Your task to perform on an android device: set default search engine in the chrome app Image 0: 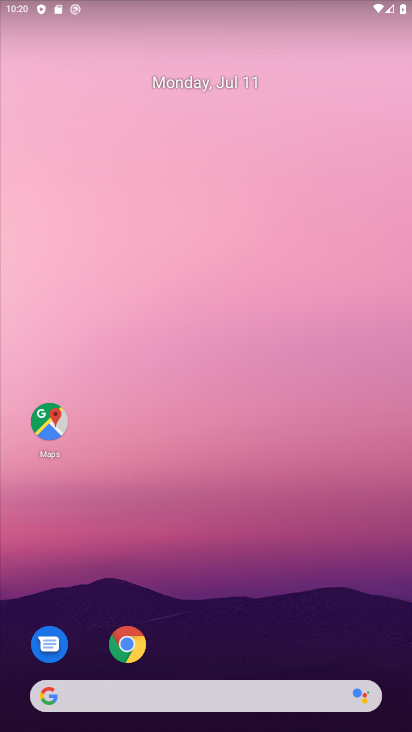
Step 0: click (130, 644)
Your task to perform on an android device: set default search engine in the chrome app Image 1: 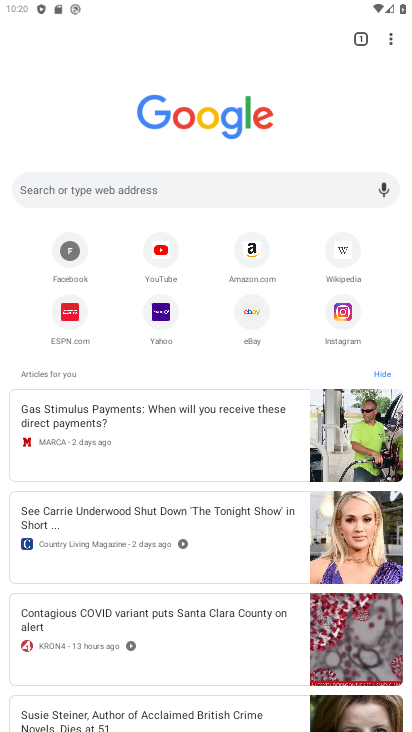
Step 1: click (391, 38)
Your task to perform on an android device: set default search engine in the chrome app Image 2: 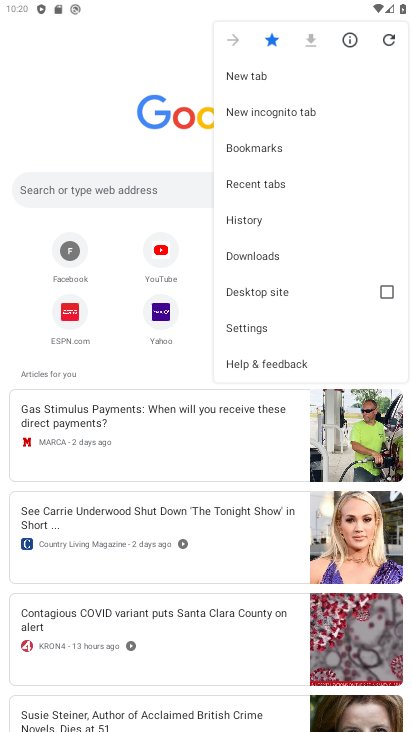
Step 2: click (245, 331)
Your task to perform on an android device: set default search engine in the chrome app Image 3: 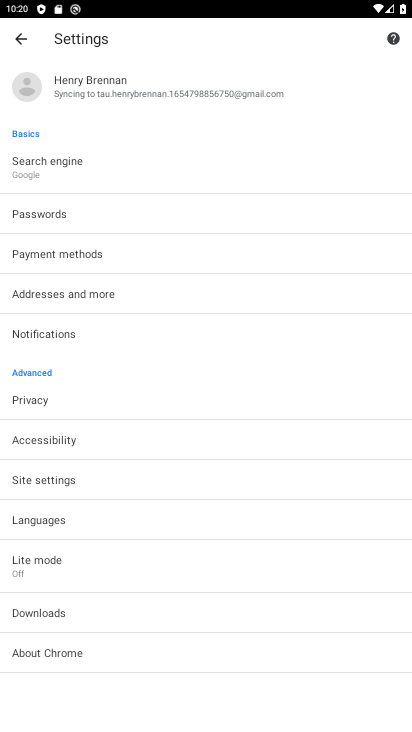
Step 3: click (72, 168)
Your task to perform on an android device: set default search engine in the chrome app Image 4: 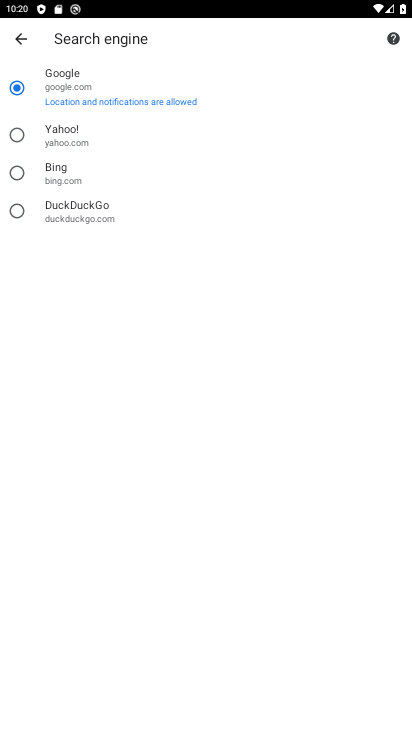
Step 4: click (91, 93)
Your task to perform on an android device: set default search engine in the chrome app Image 5: 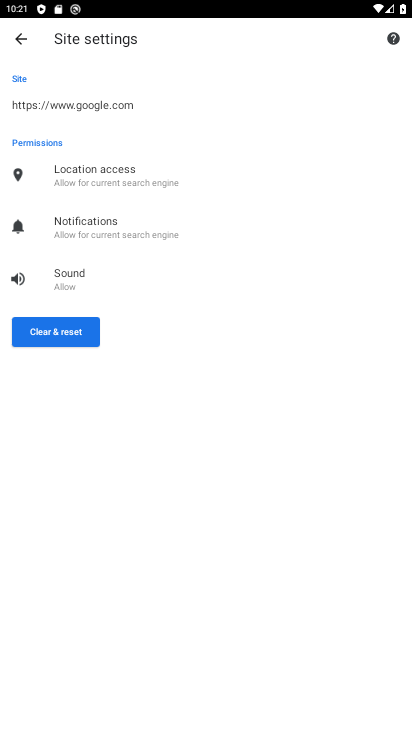
Step 5: click (87, 333)
Your task to perform on an android device: set default search engine in the chrome app Image 6: 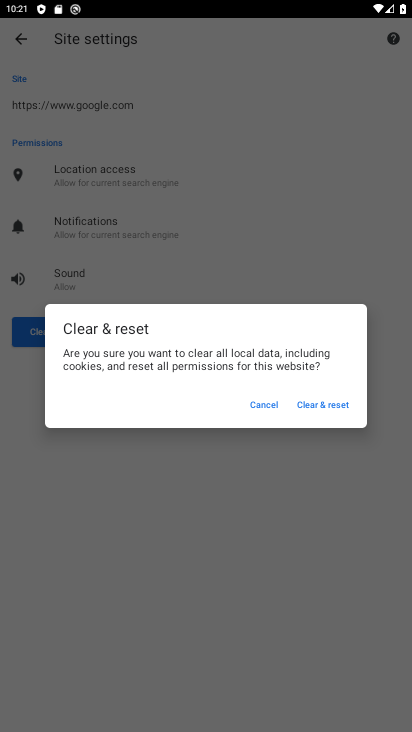
Step 6: click (335, 405)
Your task to perform on an android device: set default search engine in the chrome app Image 7: 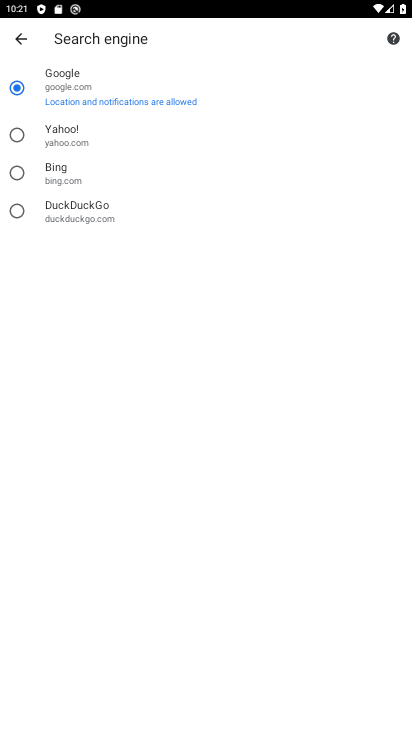
Step 7: task complete